Your task to perform on an android device: Go to sound settings Image 0: 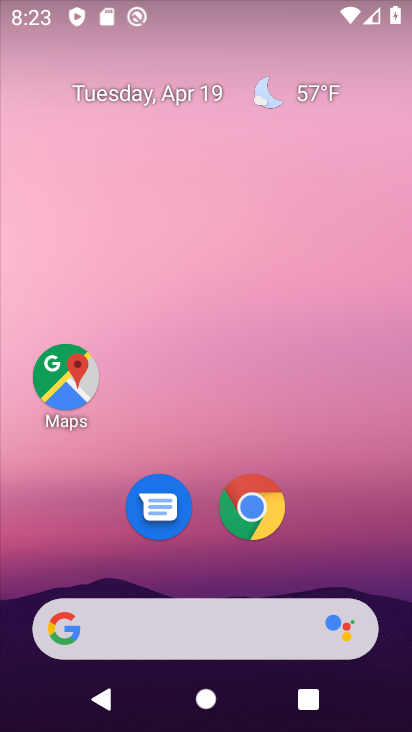
Step 0: drag from (378, 531) to (351, 118)
Your task to perform on an android device: Go to sound settings Image 1: 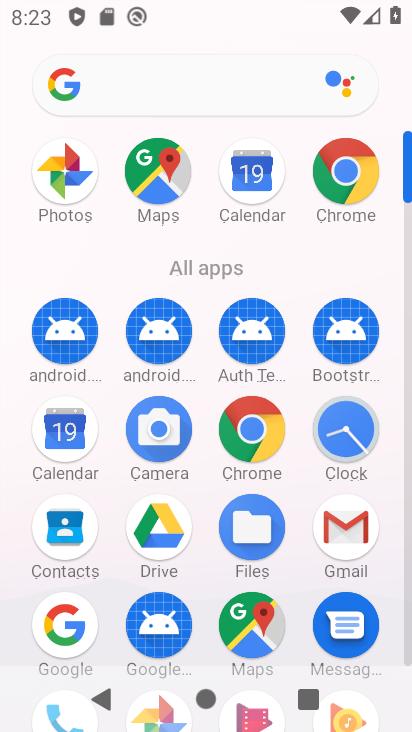
Step 1: click (407, 578)
Your task to perform on an android device: Go to sound settings Image 2: 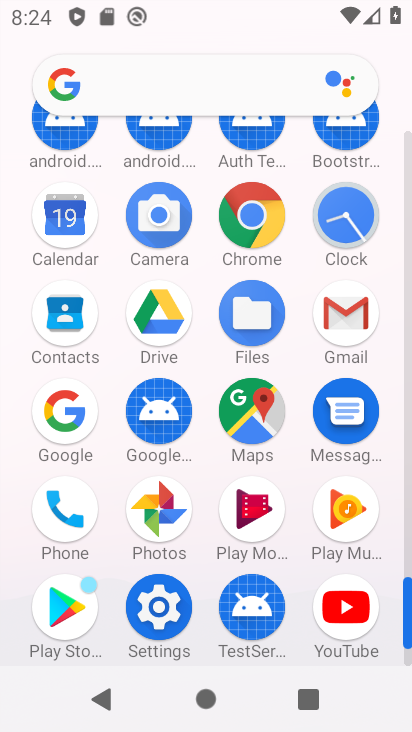
Step 2: click (155, 596)
Your task to perform on an android device: Go to sound settings Image 3: 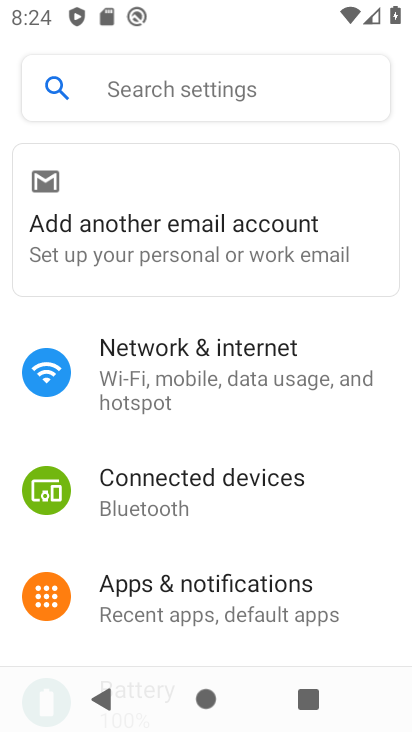
Step 3: drag from (347, 550) to (348, 148)
Your task to perform on an android device: Go to sound settings Image 4: 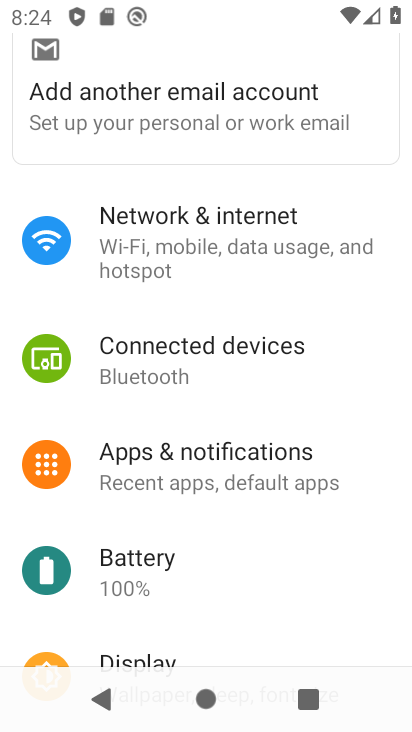
Step 4: drag from (347, 609) to (322, 243)
Your task to perform on an android device: Go to sound settings Image 5: 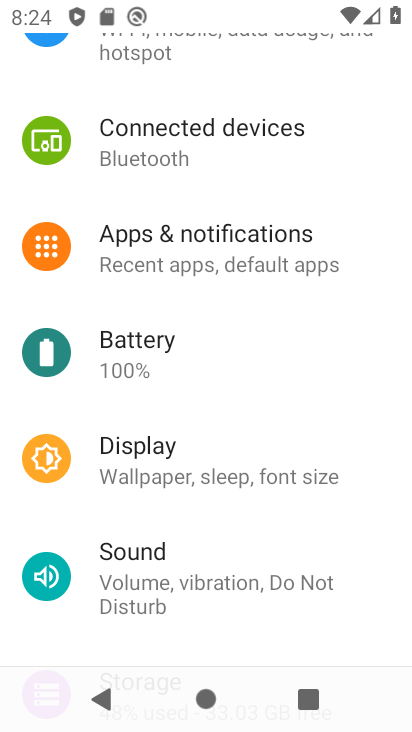
Step 5: click (274, 580)
Your task to perform on an android device: Go to sound settings Image 6: 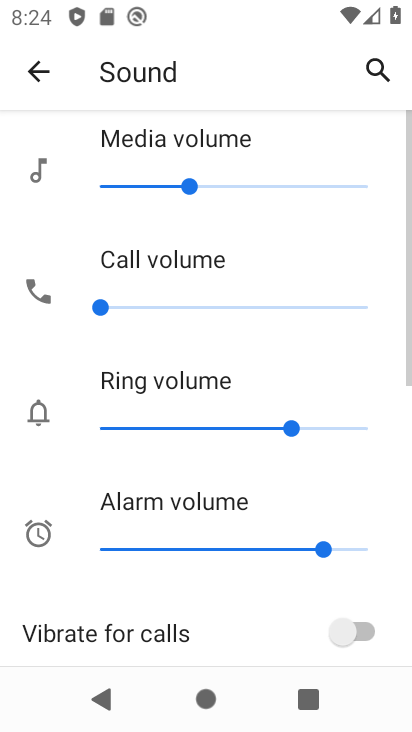
Step 6: task complete